Your task to perform on an android device: Clear the cart on target. Search for "razer naga" on target, select the first entry, and add it to the cart. Image 0: 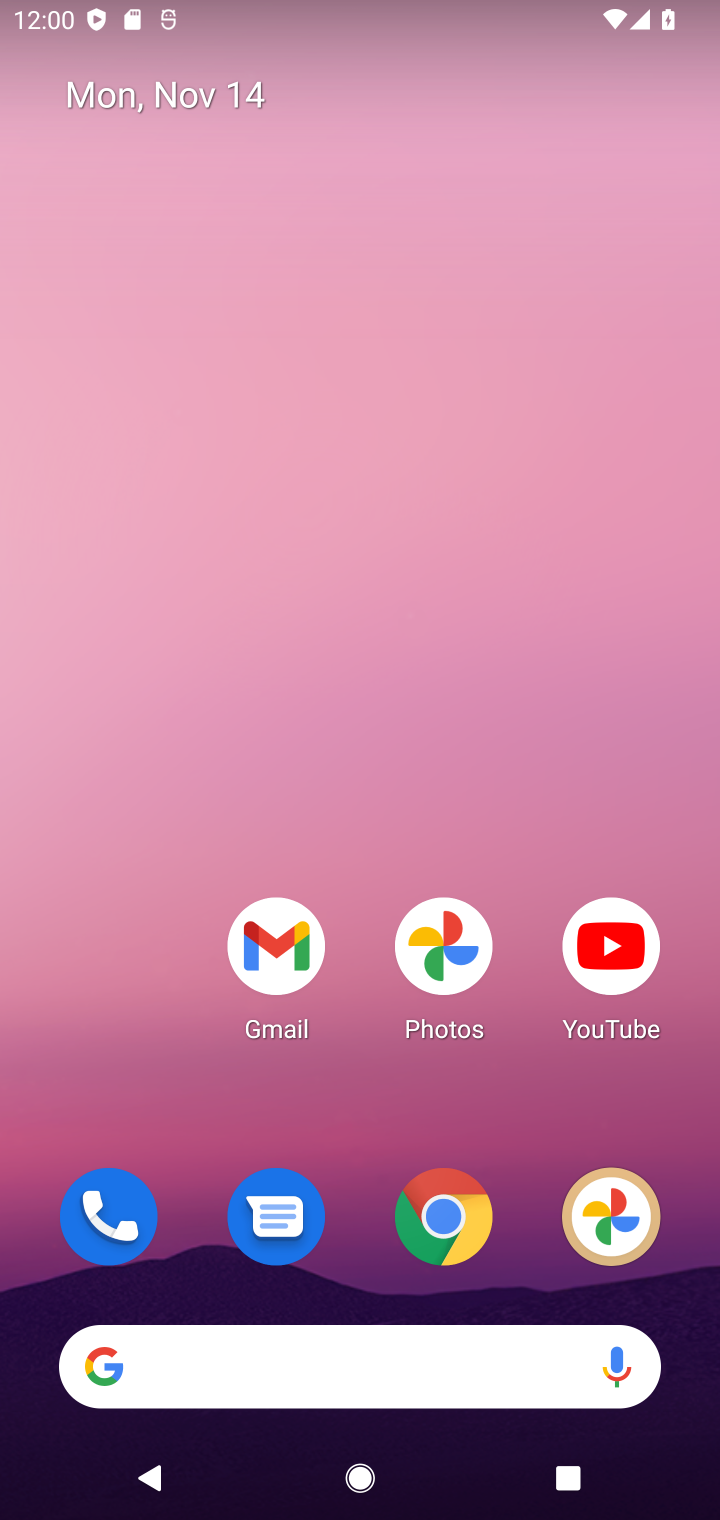
Step 0: click (486, 1219)
Your task to perform on an android device: Clear the cart on target. Search for "razer naga" on target, select the first entry, and add it to the cart. Image 1: 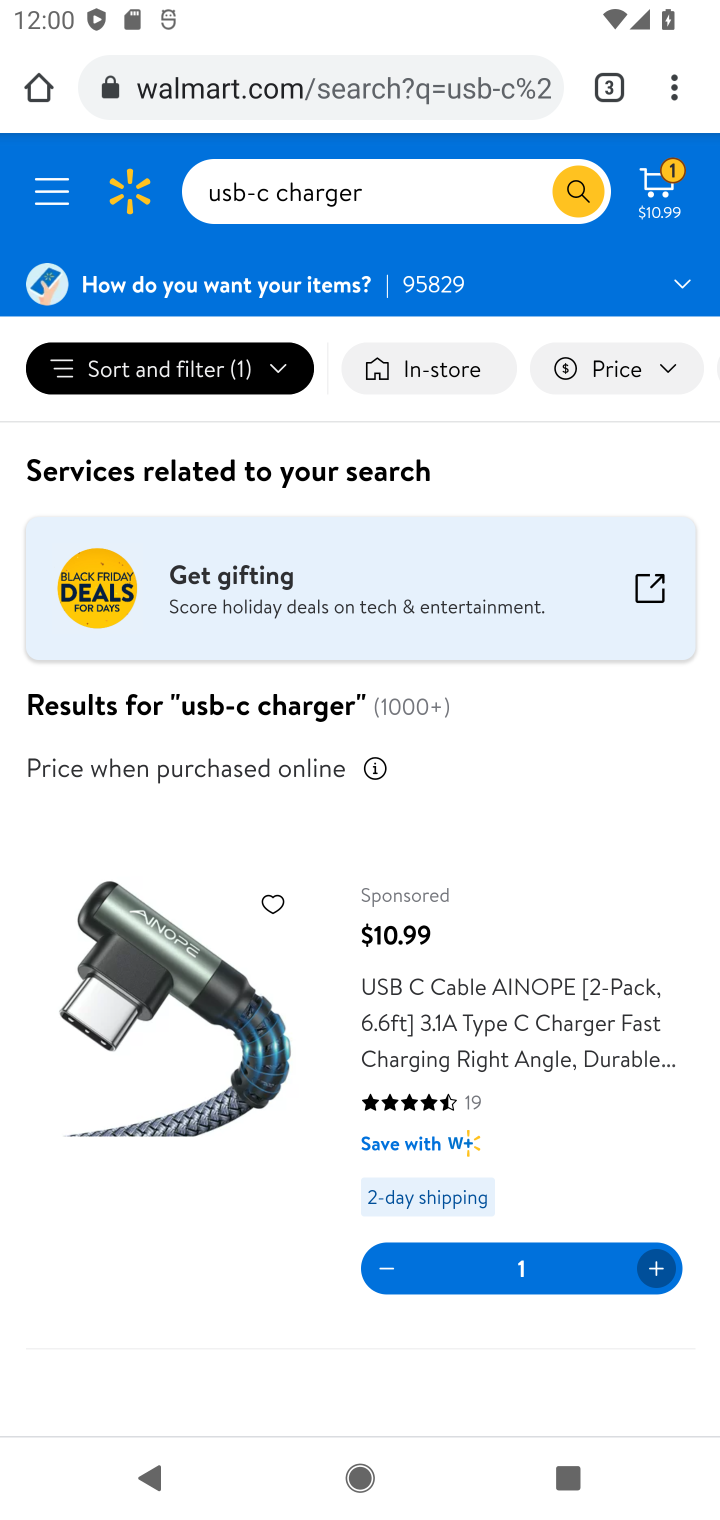
Step 1: click (614, 67)
Your task to perform on an android device: Clear the cart on target. Search for "razer naga" on target, select the first entry, and add it to the cart. Image 2: 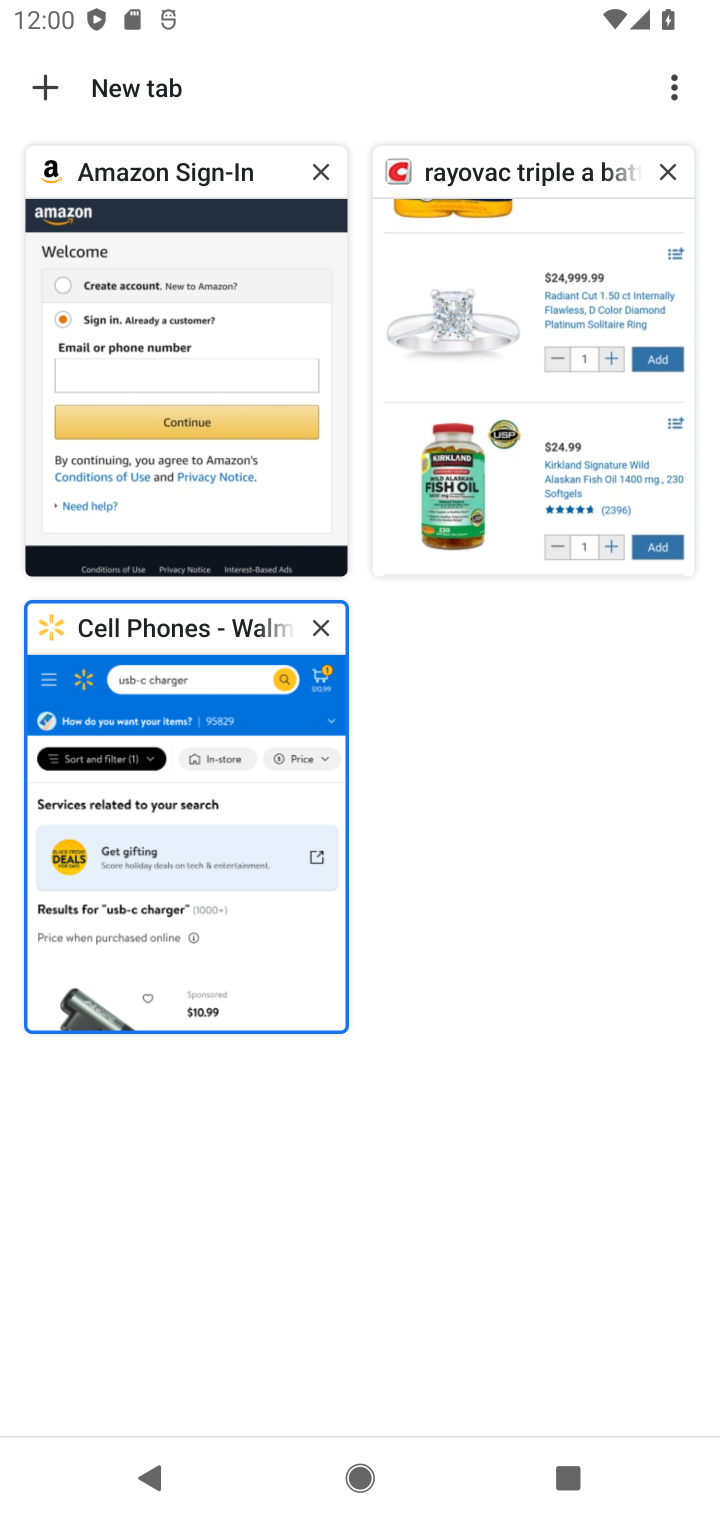
Step 2: click (43, 88)
Your task to perform on an android device: Clear the cart on target. Search for "razer naga" on target, select the first entry, and add it to the cart. Image 3: 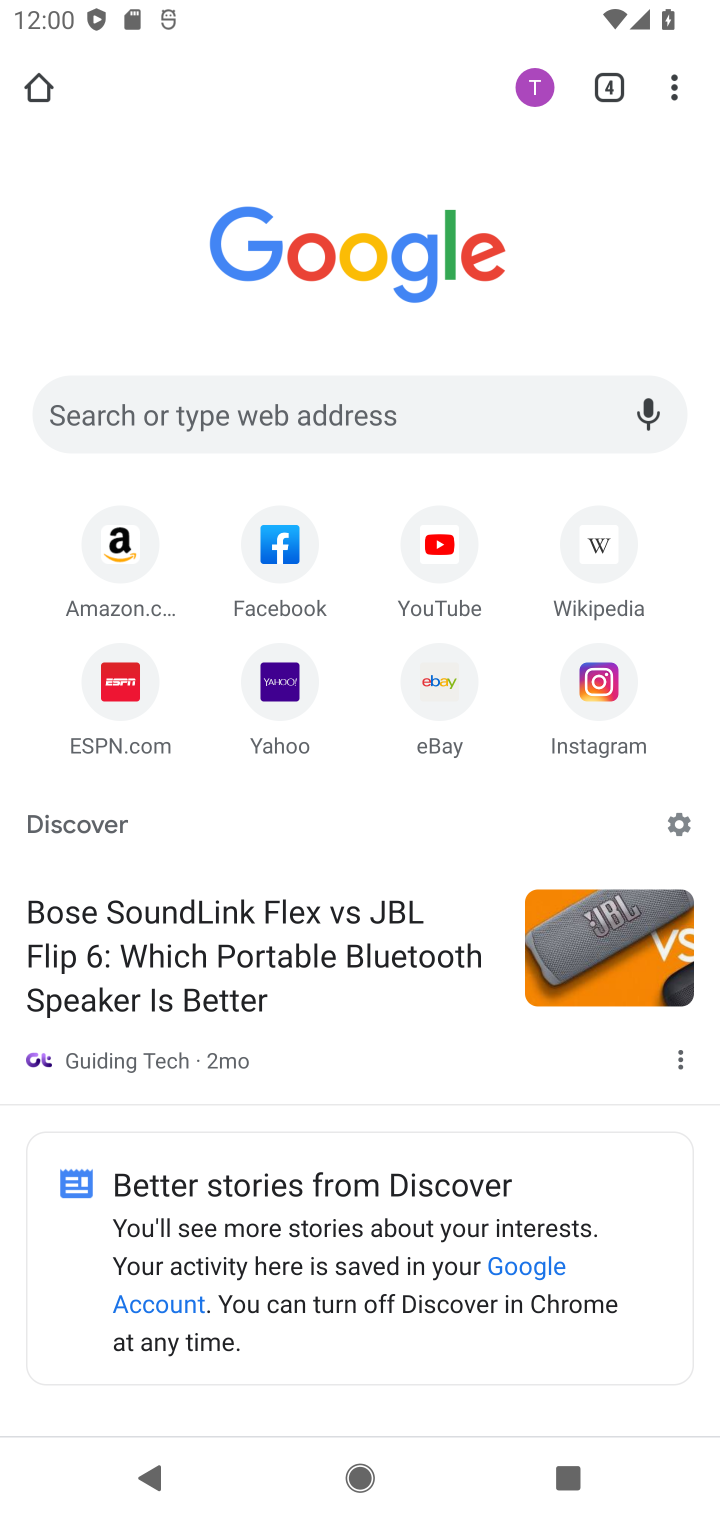
Step 3: click (271, 422)
Your task to perform on an android device: Clear the cart on target. Search for "razer naga" on target, select the first entry, and add it to the cart. Image 4: 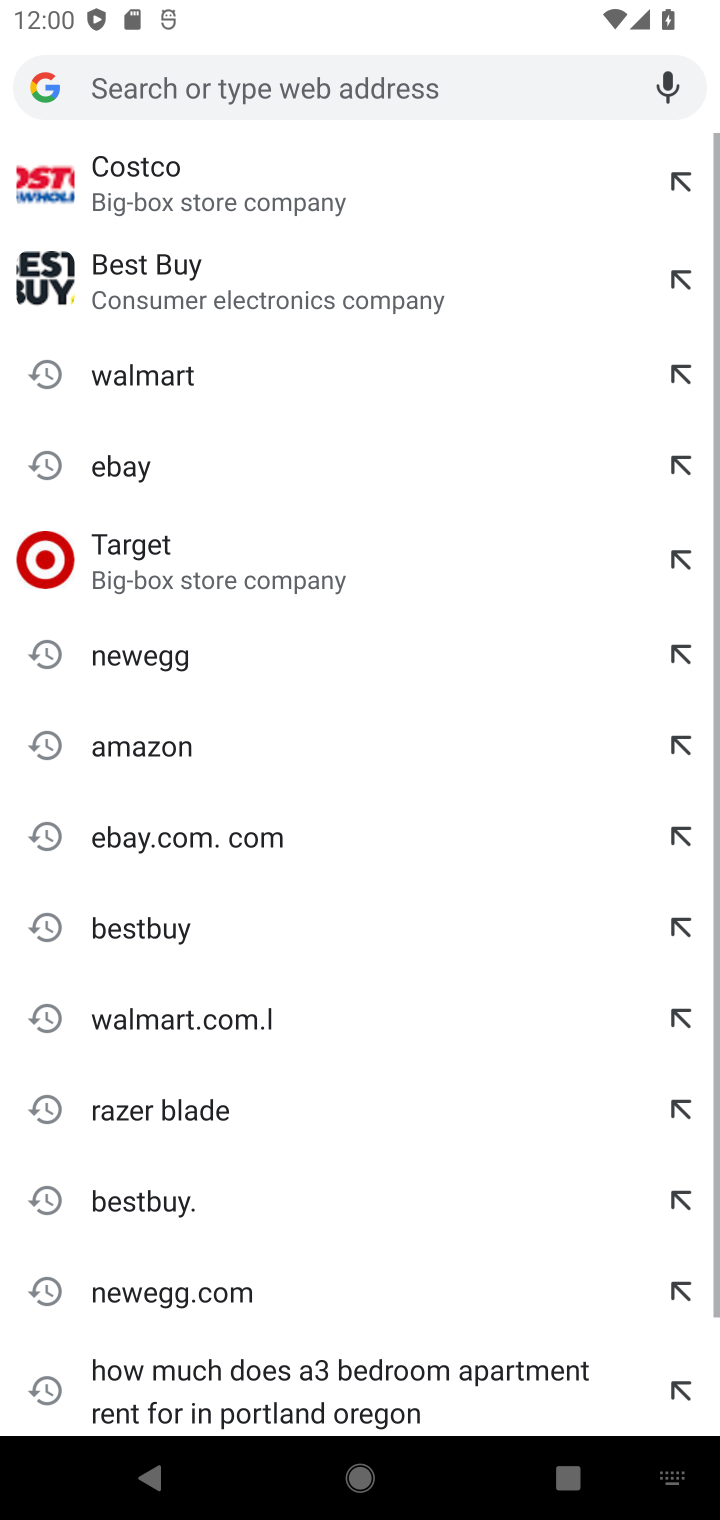
Step 4: click (271, 422)
Your task to perform on an android device: Clear the cart on target. Search for "razer naga" on target, select the first entry, and add it to the cart. Image 5: 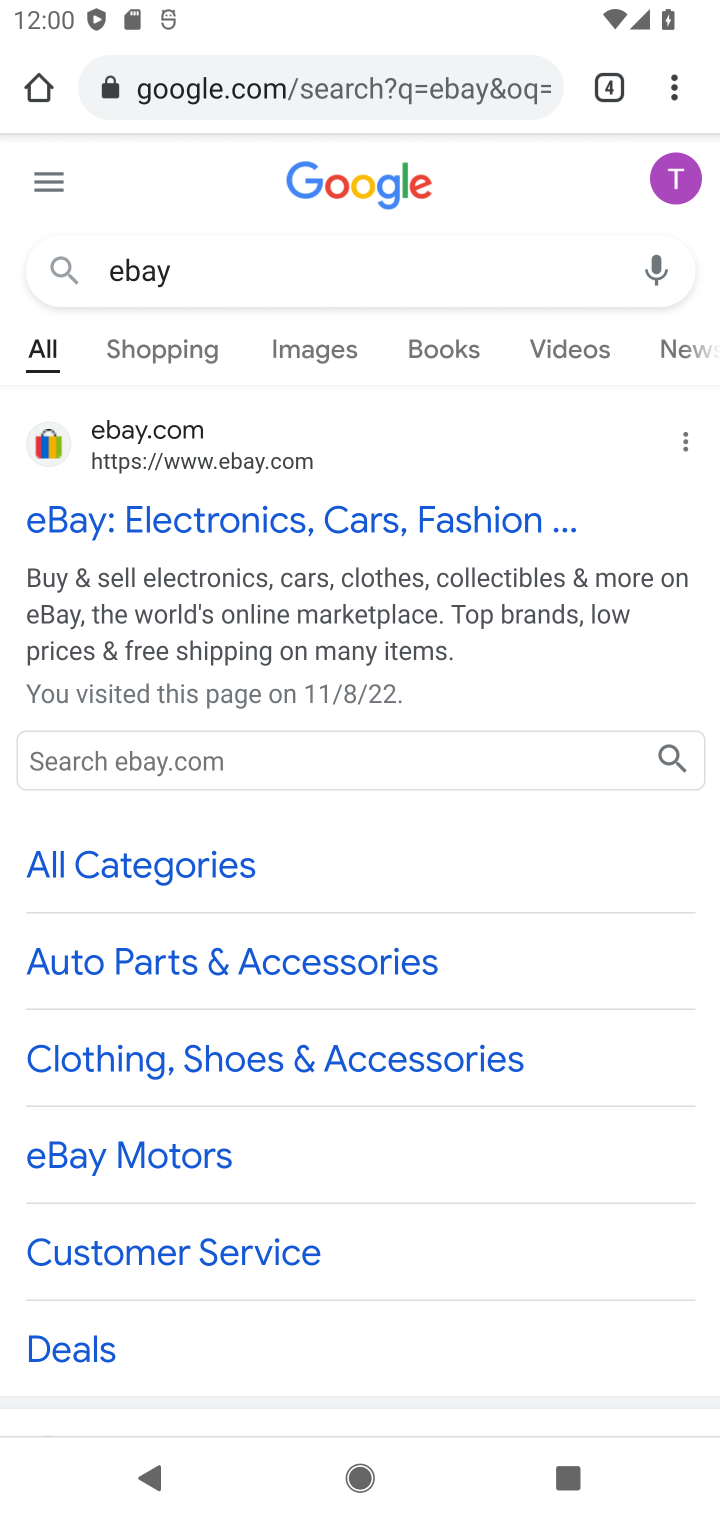
Step 5: click (311, 86)
Your task to perform on an android device: Clear the cart on target. Search for "razer naga" on target, select the first entry, and add it to the cart. Image 6: 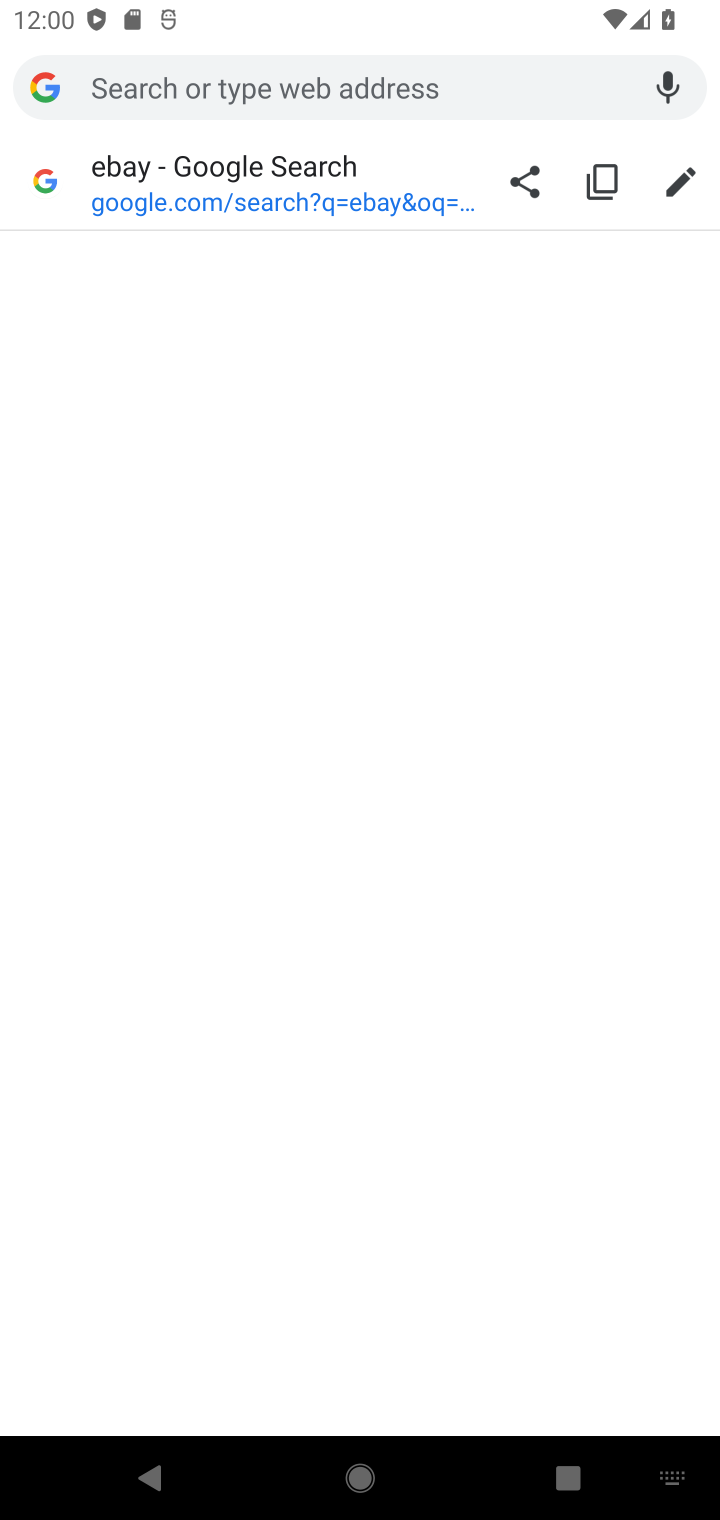
Step 6: type "target"
Your task to perform on an android device: Clear the cart on target. Search for "razer naga" on target, select the first entry, and add it to the cart. Image 7: 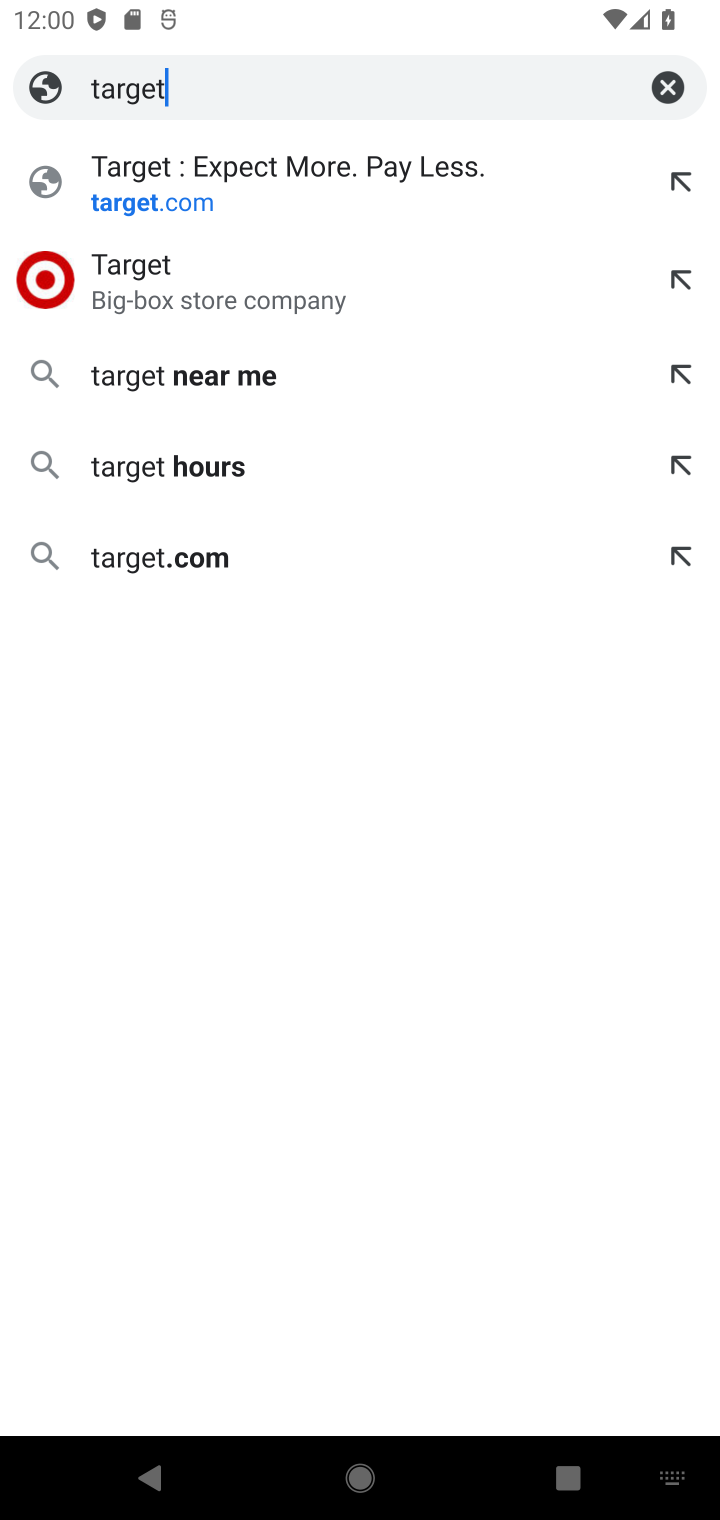
Step 7: click (194, 155)
Your task to perform on an android device: Clear the cart on target. Search for "razer naga" on target, select the first entry, and add it to the cart. Image 8: 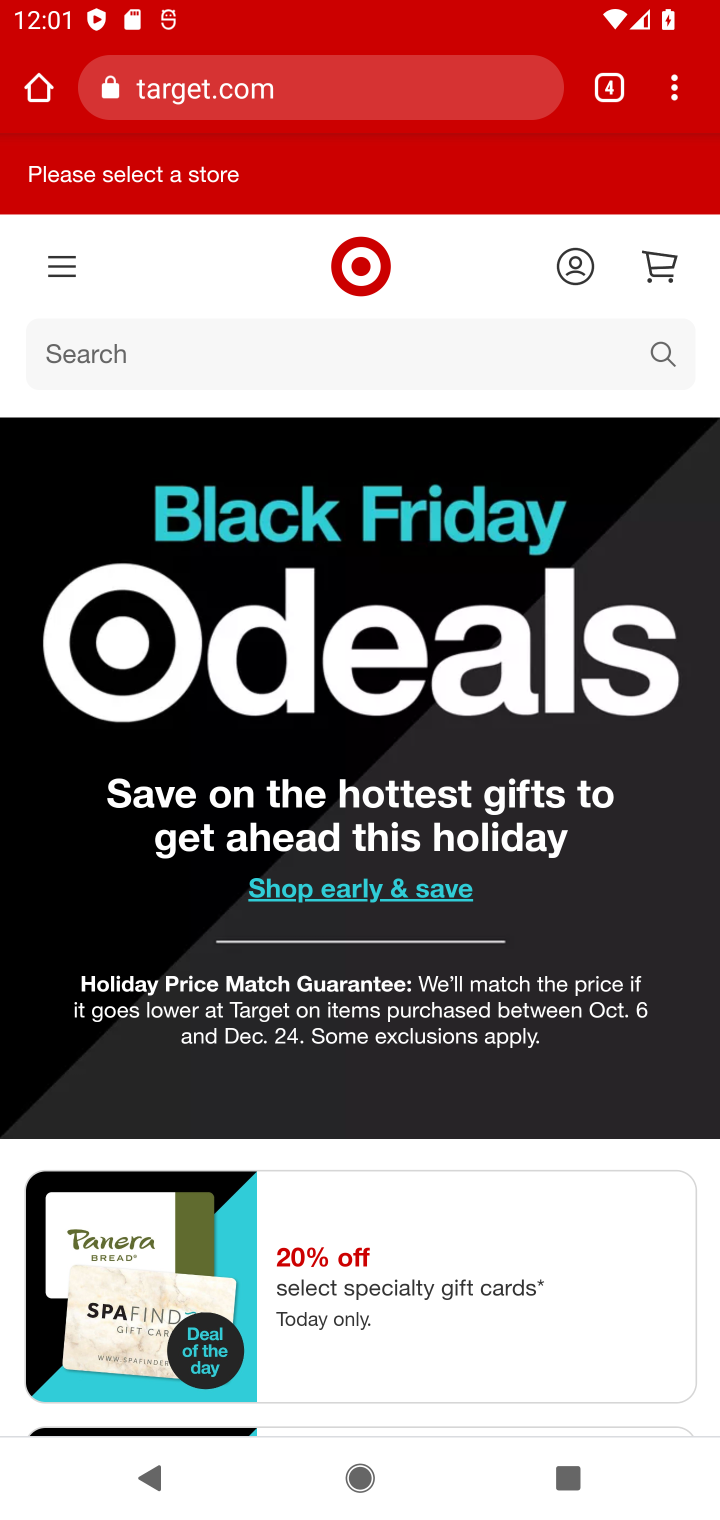
Step 8: click (222, 355)
Your task to perform on an android device: Clear the cart on target. Search for "razer naga" on target, select the first entry, and add it to the cart. Image 9: 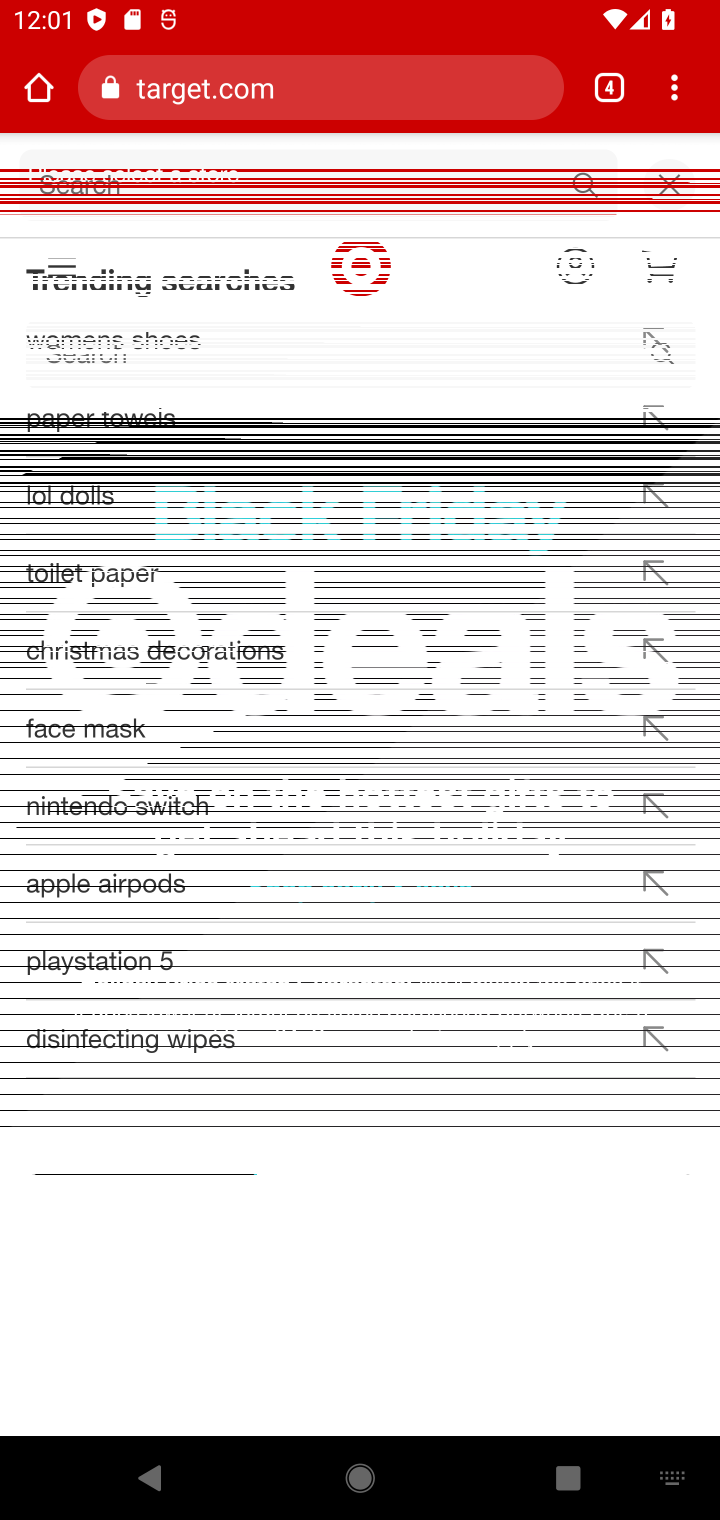
Step 9: type "razer naga"
Your task to perform on an android device: Clear the cart on target. Search for "razer naga" on target, select the first entry, and add it to the cart. Image 10: 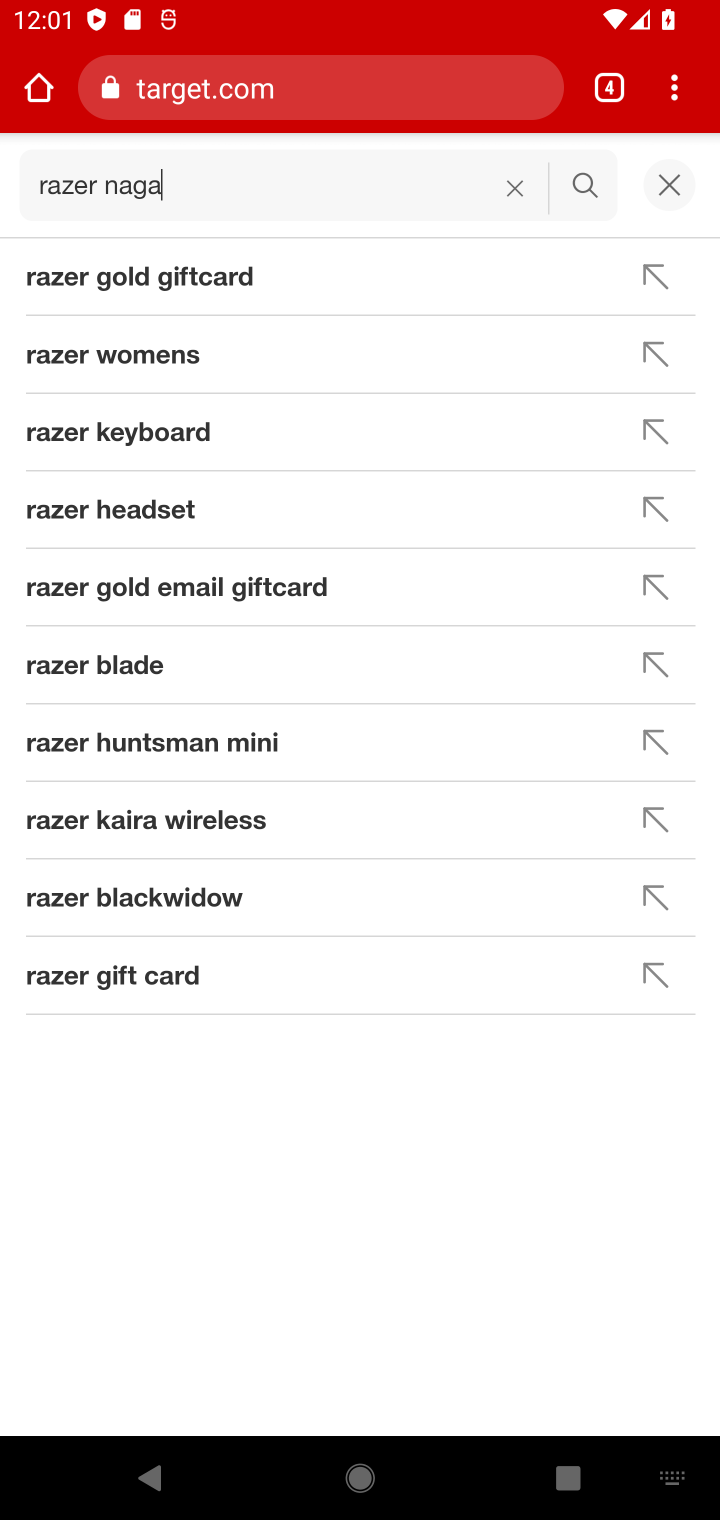
Step 10: click (593, 187)
Your task to perform on an android device: Clear the cart on target. Search for "razer naga" on target, select the first entry, and add it to the cart. Image 11: 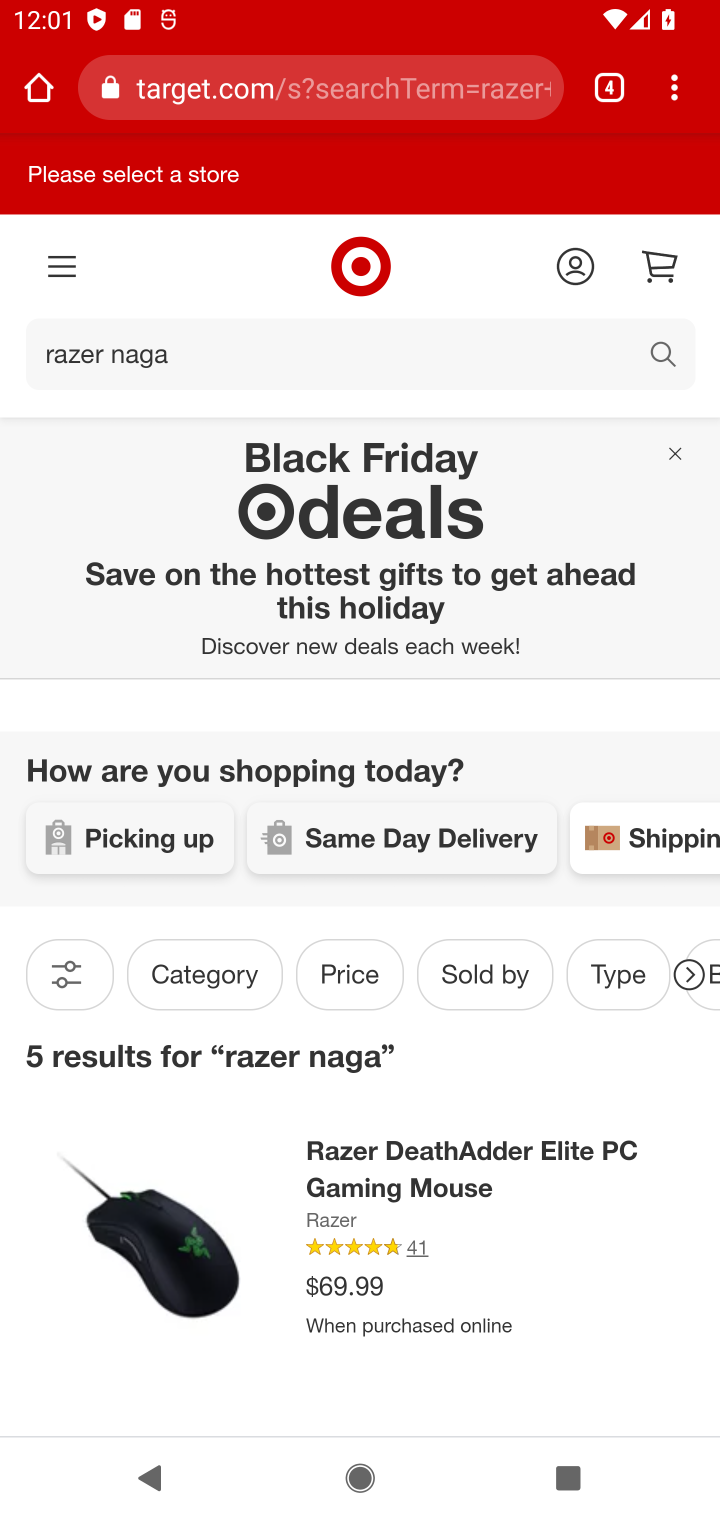
Step 11: task complete